Your task to perform on an android device: Show me the alarms in the clock app Image 0: 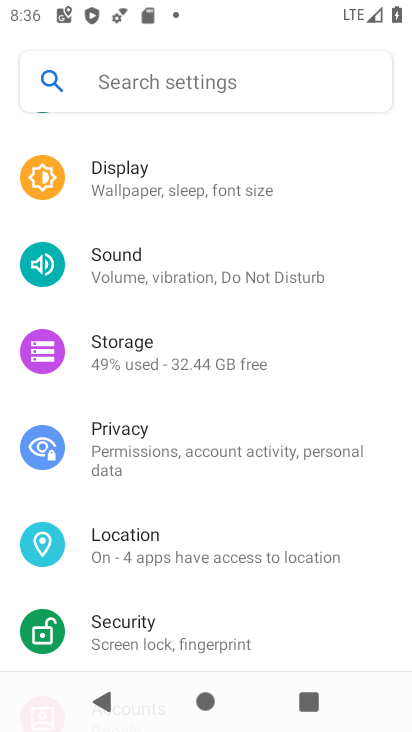
Step 0: drag from (194, 476) to (212, 278)
Your task to perform on an android device: Show me the alarms in the clock app Image 1: 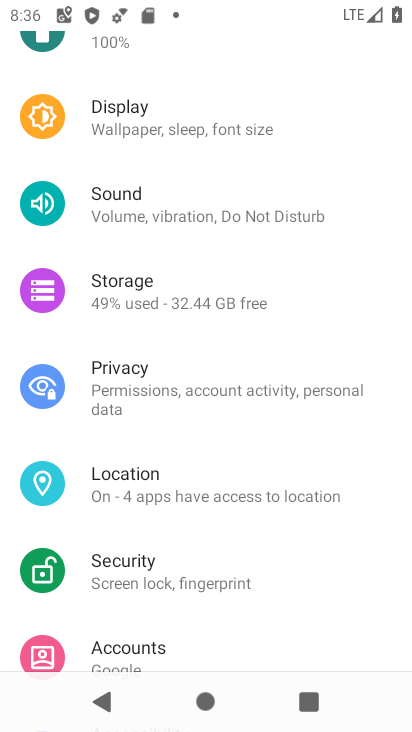
Step 1: press home button
Your task to perform on an android device: Show me the alarms in the clock app Image 2: 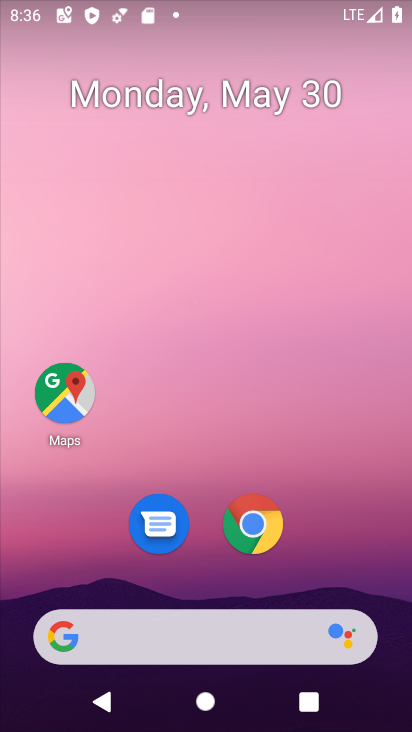
Step 2: drag from (304, 537) to (294, 12)
Your task to perform on an android device: Show me the alarms in the clock app Image 3: 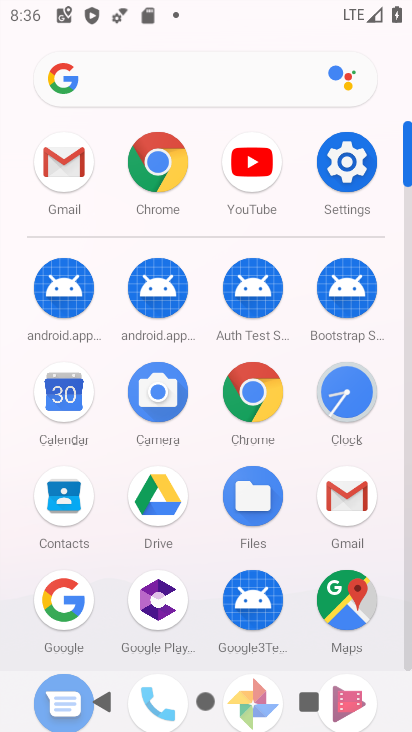
Step 3: click (340, 380)
Your task to perform on an android device: Show me the alarms in the clock app Image 4: 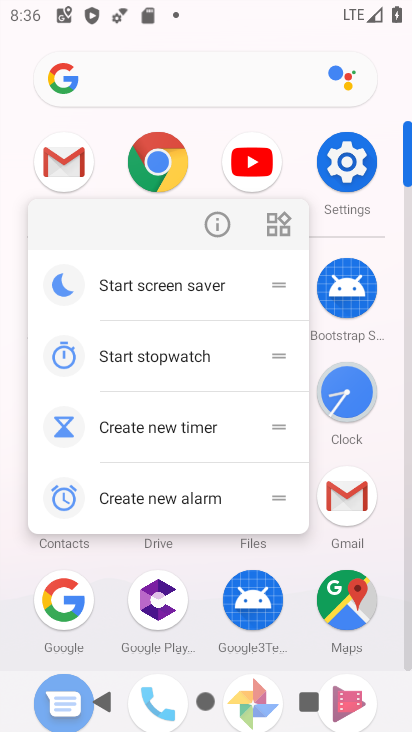
Step 4: click (352, 401)
Your task to perform on an android device: Show me the alarms in the clock app Image 5: 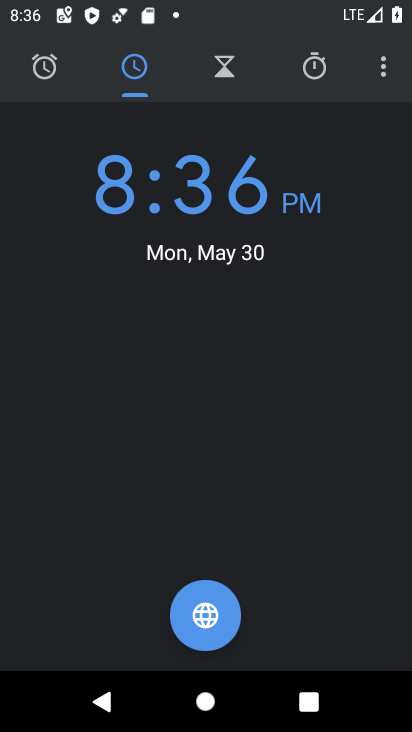
Step 5: click (50, 67)
Your task to perform on an android device: Show me the alarms in the clock app Image 6: 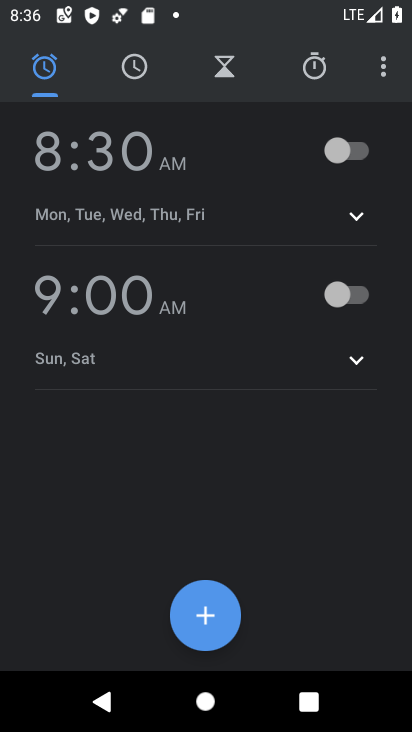
Step 6: task complete